Your task to perform on an android device: Go to notification settings Image 0: 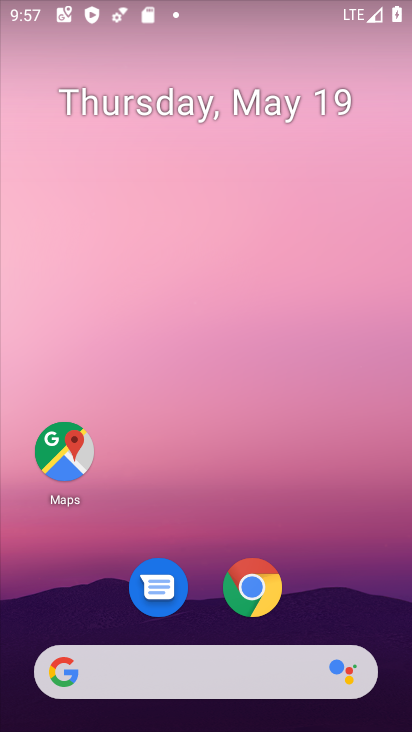
Step 0: drag from (204, 635) to (18, 55)
Your task to perform on an android device: Go to notification settings Image 1: 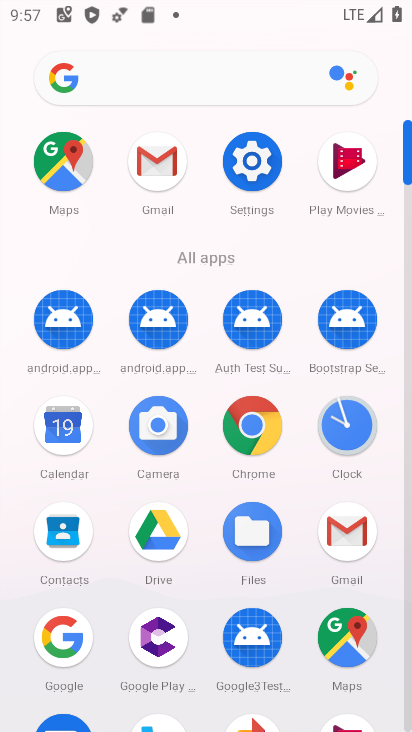
Step 1: click (247, 166)
Your task to perform on an android device: Go to notification settings Image 2: 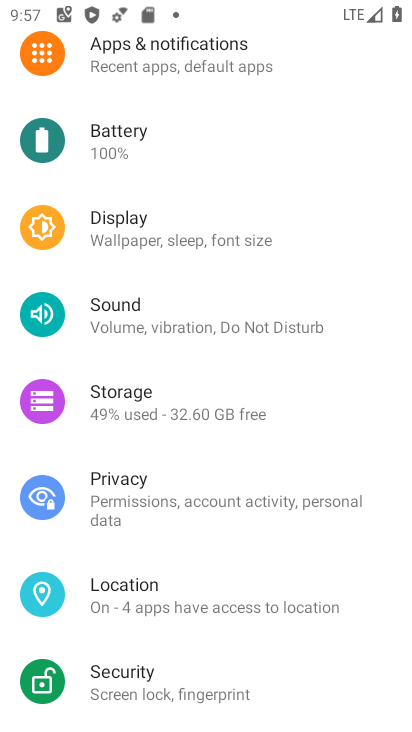
Step 2: click (181, 51)
Your task to perform on an android device: Go to notification settings Image 3: 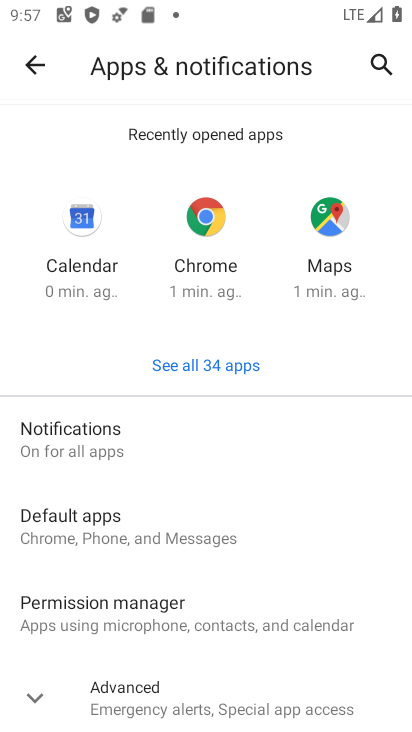
Step 3: task complete